Your task to perform on an android device: Clear the cart on newegg.com. Image 0: 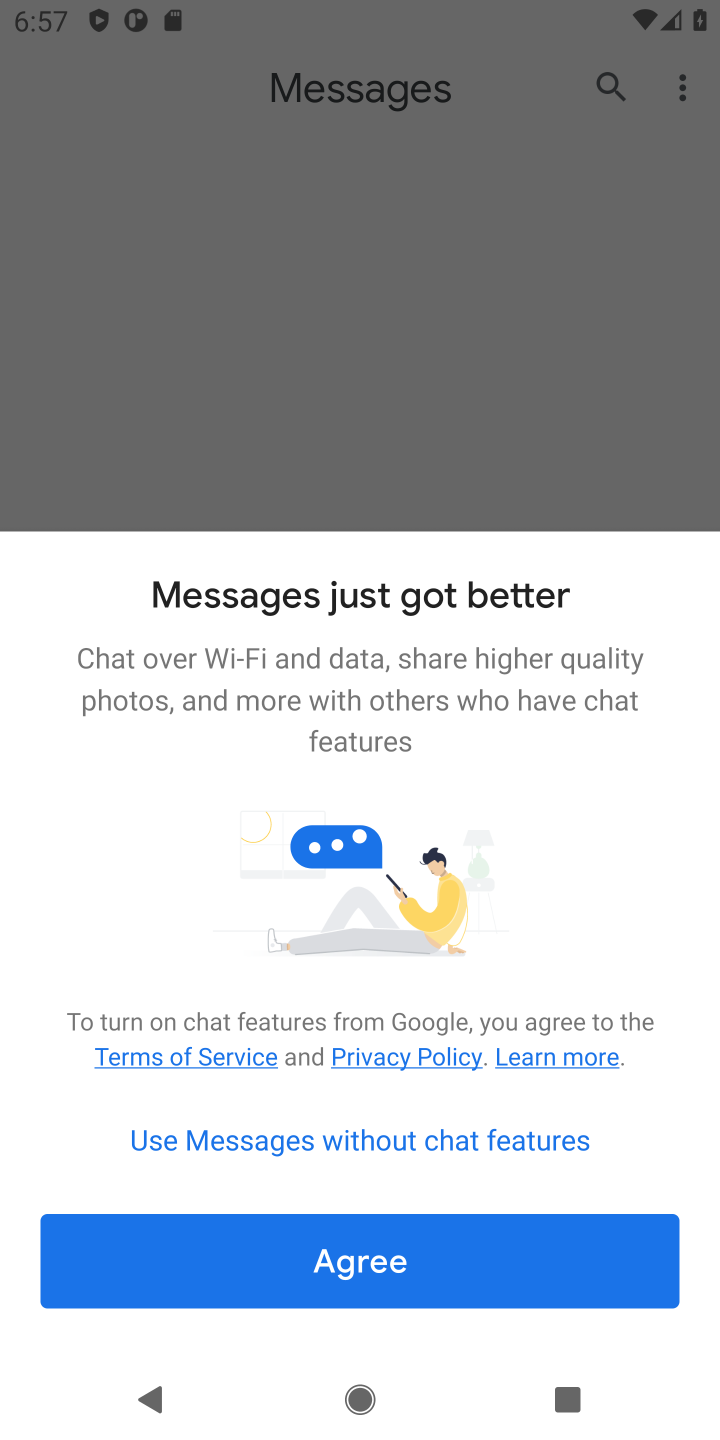
Step 0: press home button
Your task to perform on an android device: Clear the cart on newegg.com. Image 1: 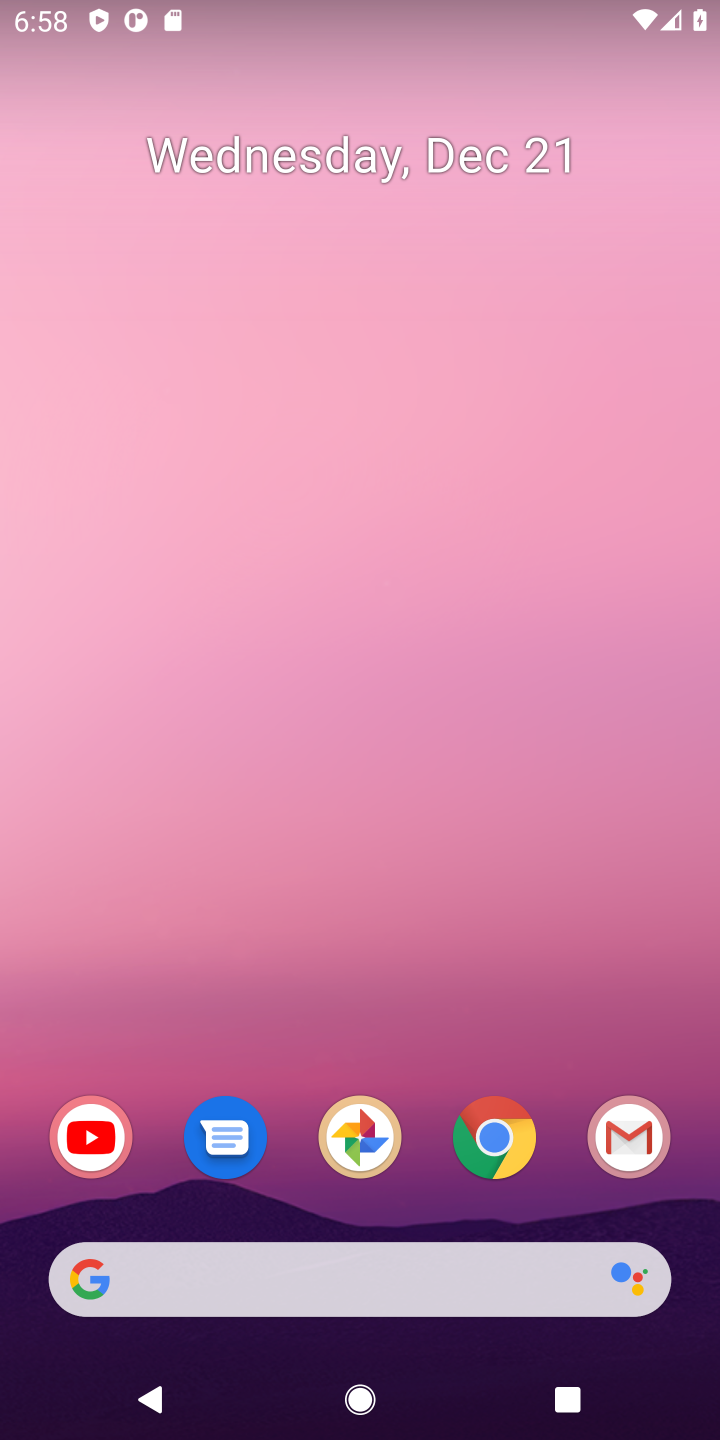
Step 1: click (493, 1147)
Your task to perform on an android device: Clear the cart on newegg.com. Image 2: 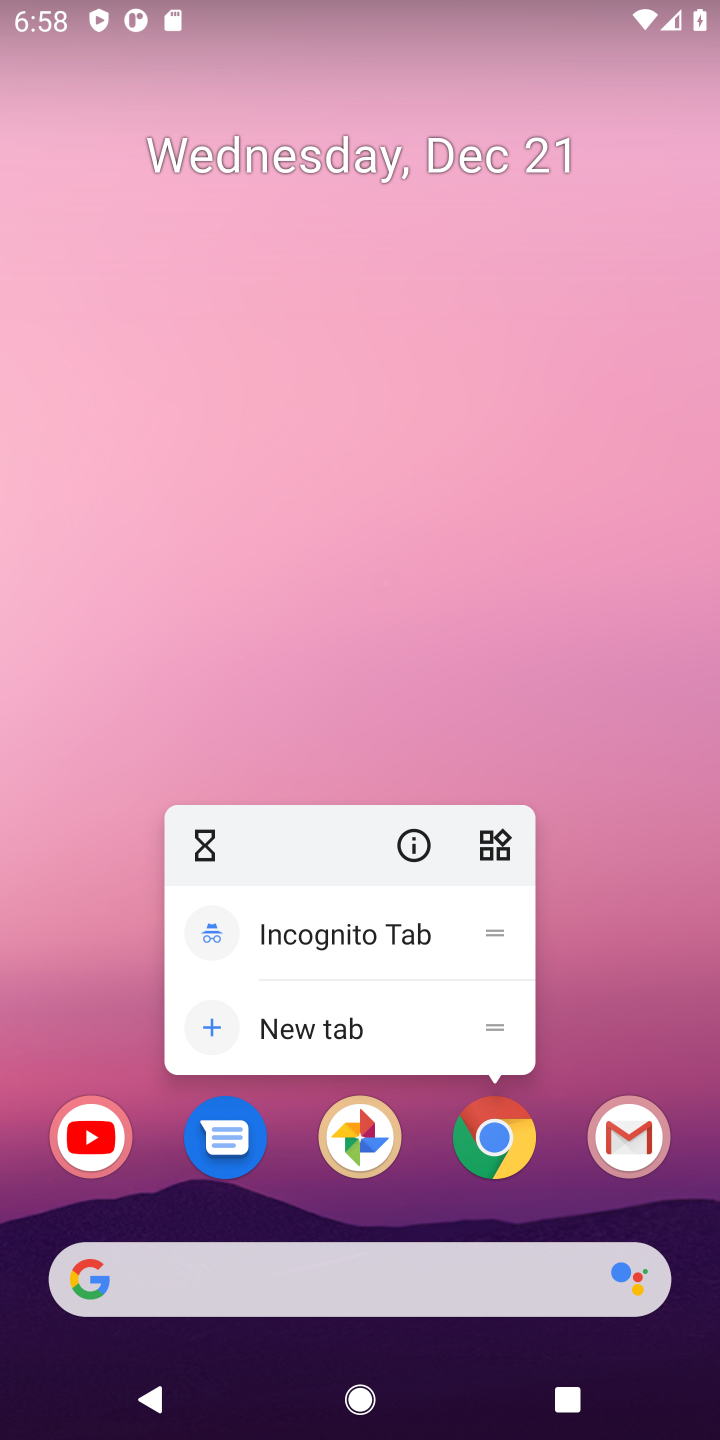
Step 2: click (493, 1147)
Your task to perform on an android device: Clear the cart on newegg.com. Image 3: 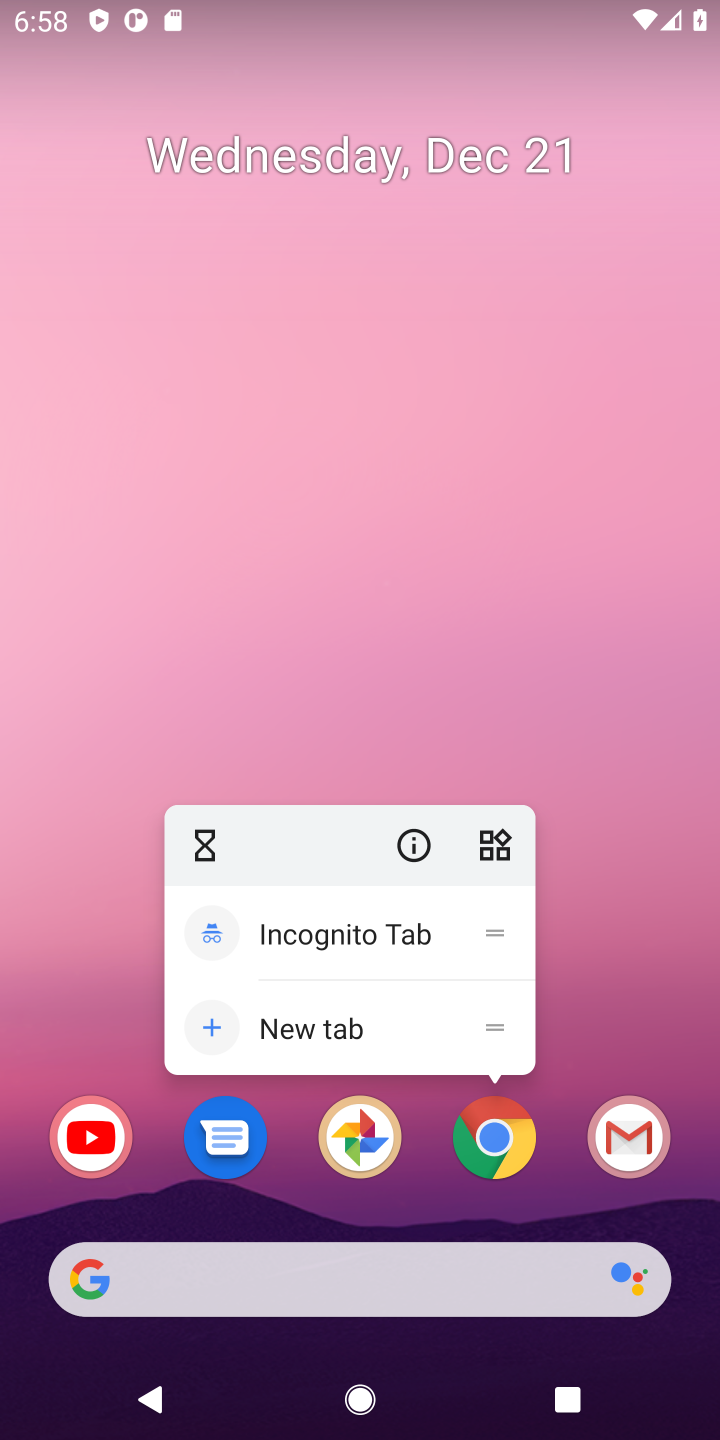
Step 3: click (493, 1147)
Your task to perform on an android device: Clear the cart on newegg.com. Image 4: 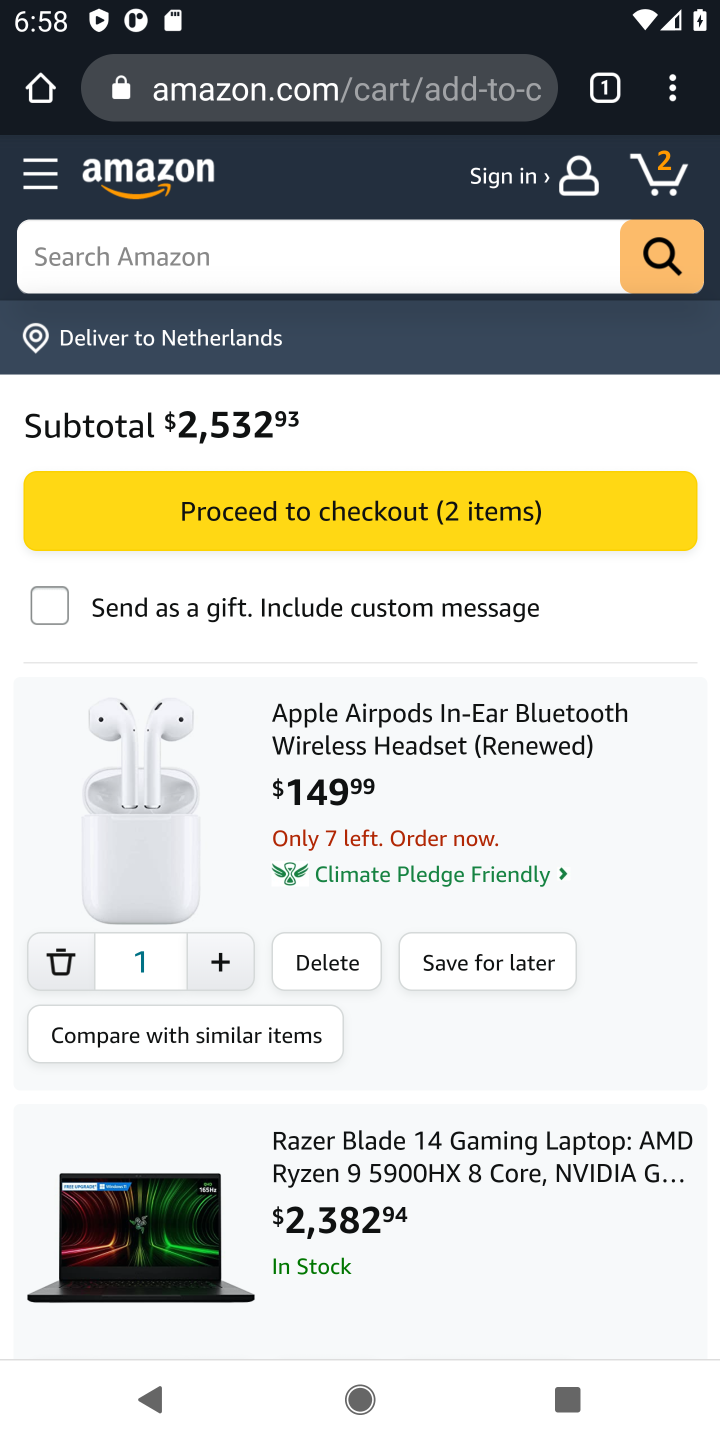
Step 4: click (216, 101)
Your task to perform on an android device: Clear the cart on newegg.com. Image 5: 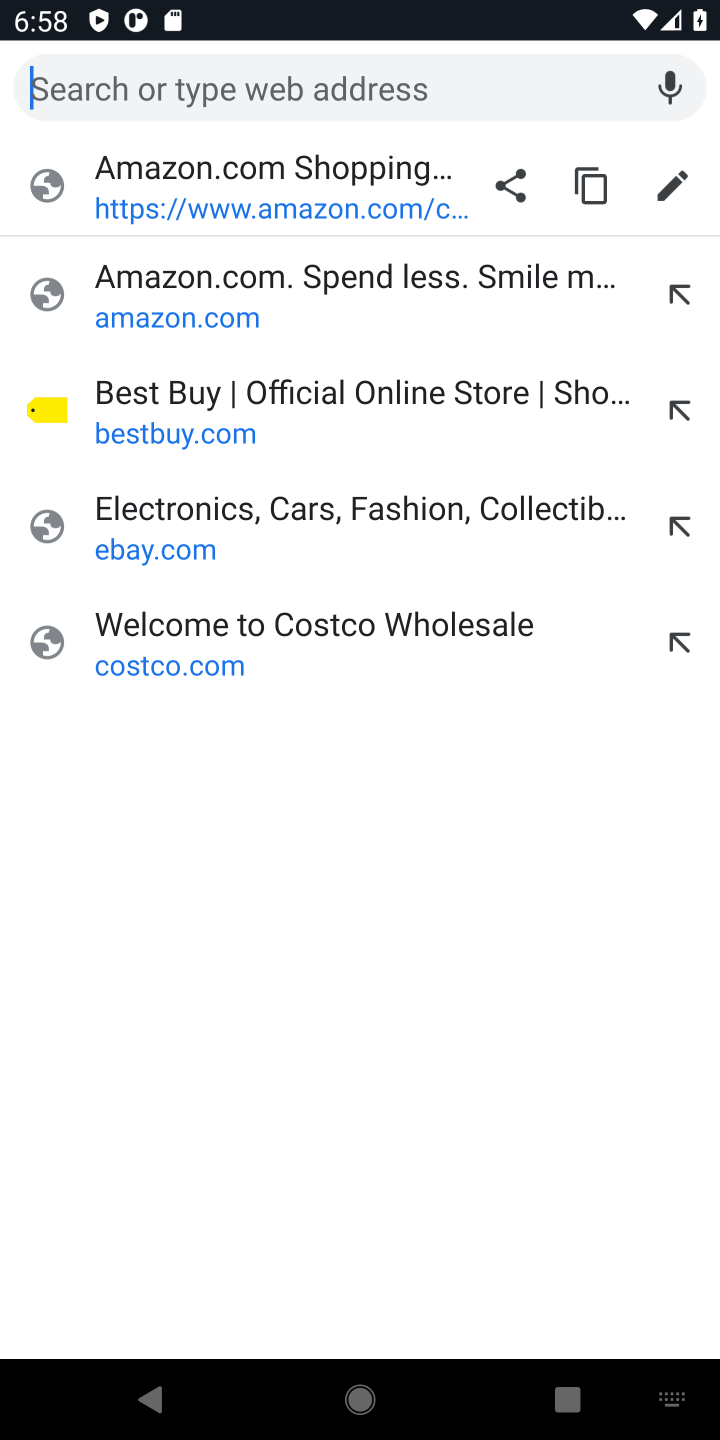
Step 5: type "newegg.com"
Your task to perform on an android device: Clear the cart on newegg.com. Image 6: 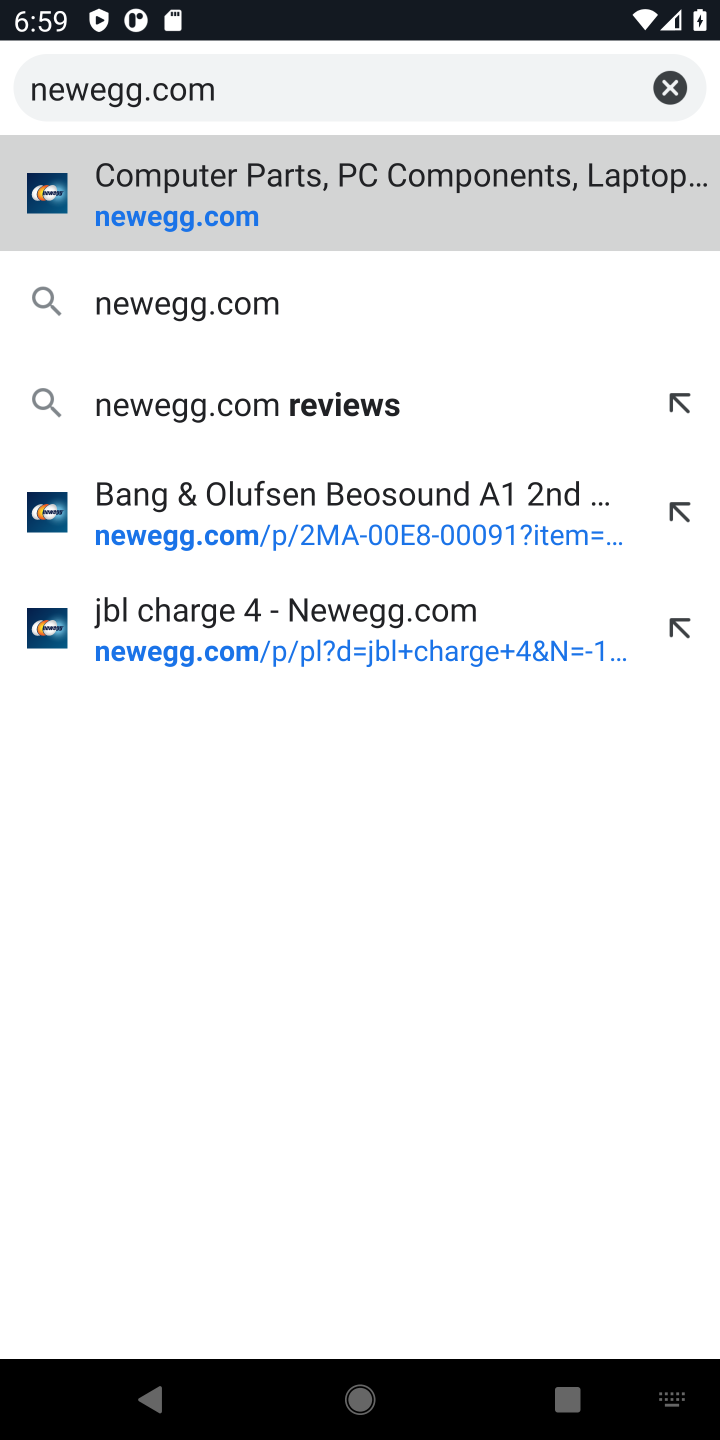
Step 6: click (217, 216)
Your task to perform on an android device: Clear the cart on newegg.com. Image 7: 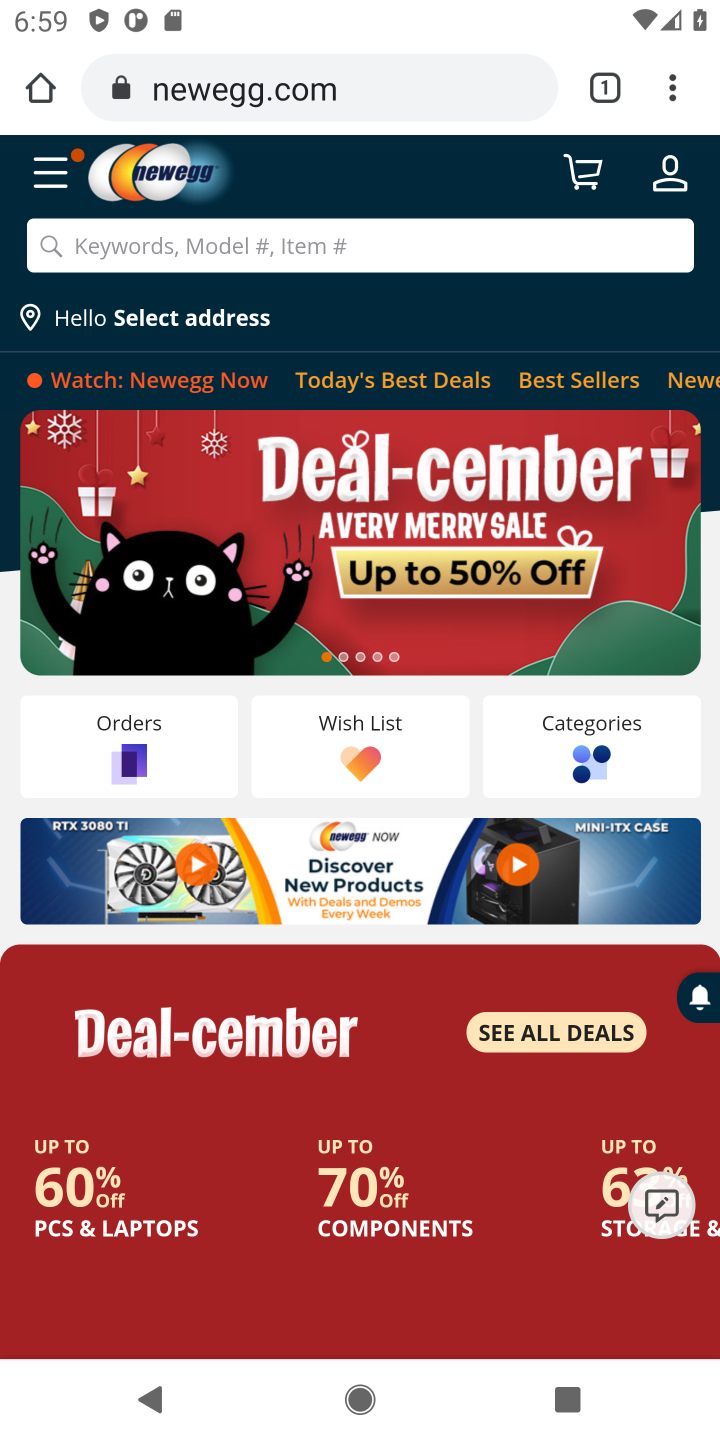
Step 7: click (584, 181)
Your task to perform on an android device: Clear the cart on newegg.com. Image 8: 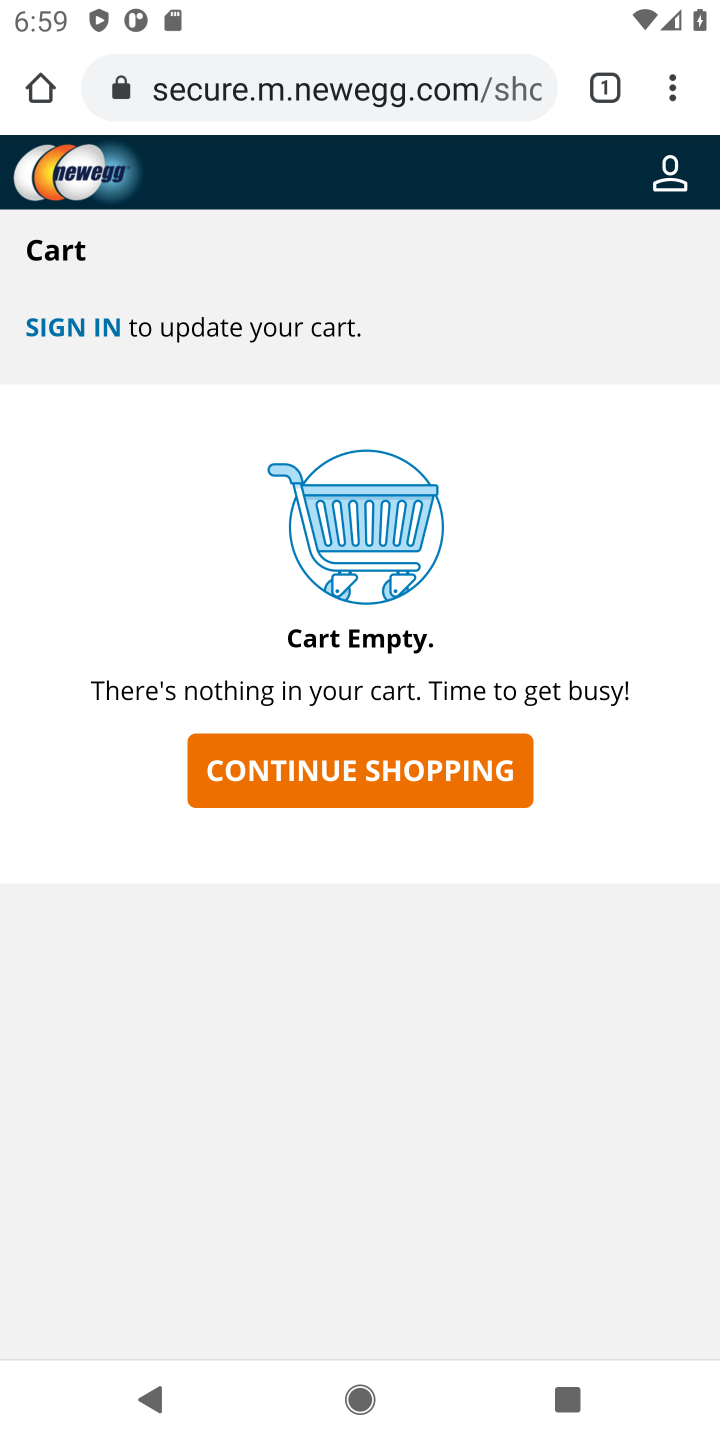
Step 8: task complete